Your task to perform on an android device: turn off notifications in google photos Image 0: 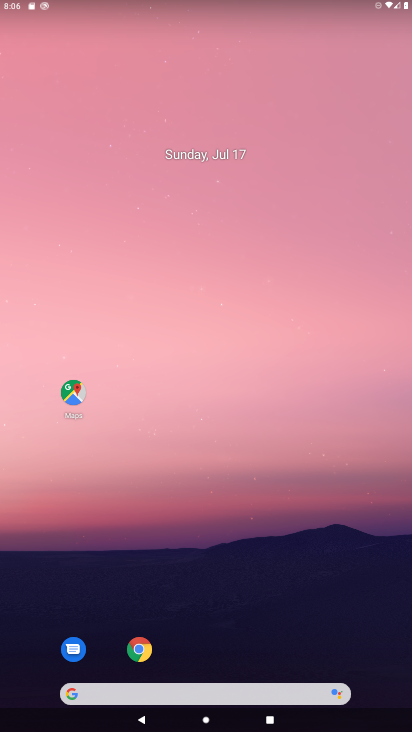
Step 0: drag from (225, 671) to (196, 9)
Your task to perform on an android device: turn off notifications in google photos Image 1: 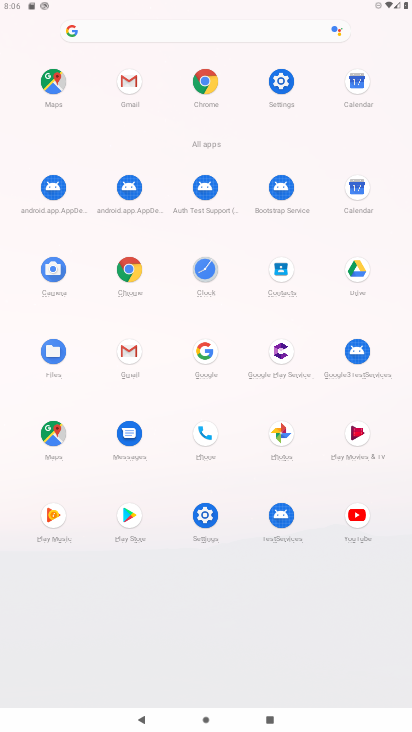
Step 1: click (284, 426)
Your task to perform on an android device: turn off notifications in google photos Image 2: 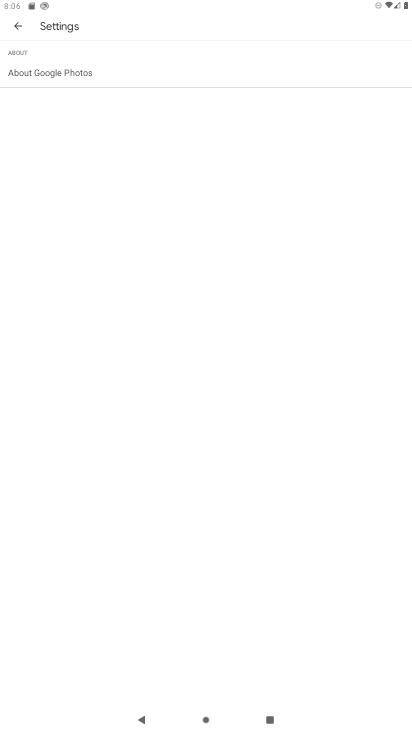
Step 2: click (19, 25)
Your task to perform on an android device: turn off notifications in google photos Image 3: 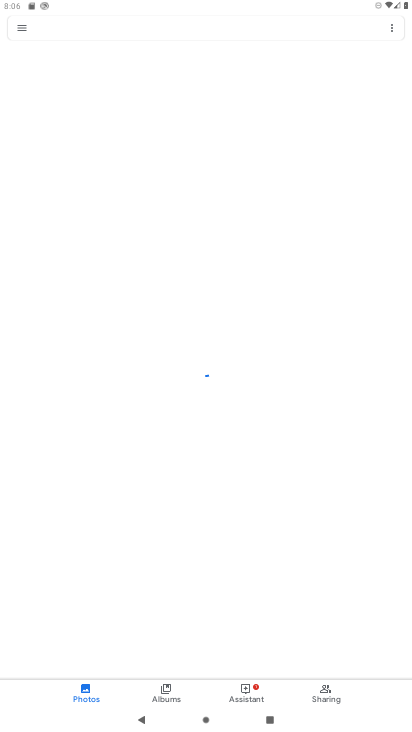
Step 3: click (19, 25)
Your task to perform on an android device: turn off notifications in google photos Image 4: 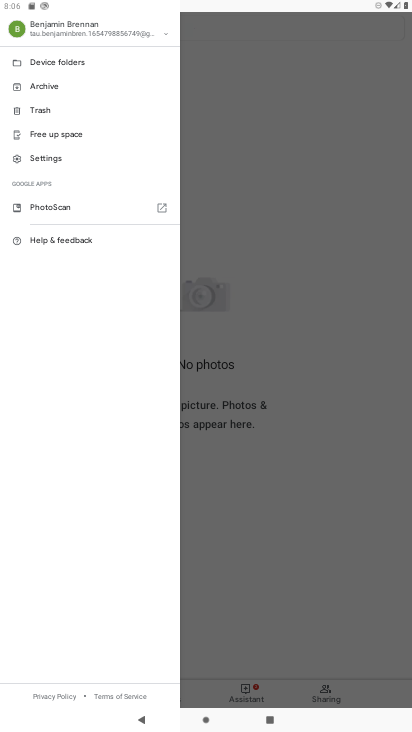
Step 4: click (92, 157)
Your task to perform on an android device: turn off notifications in google photos Image 5: 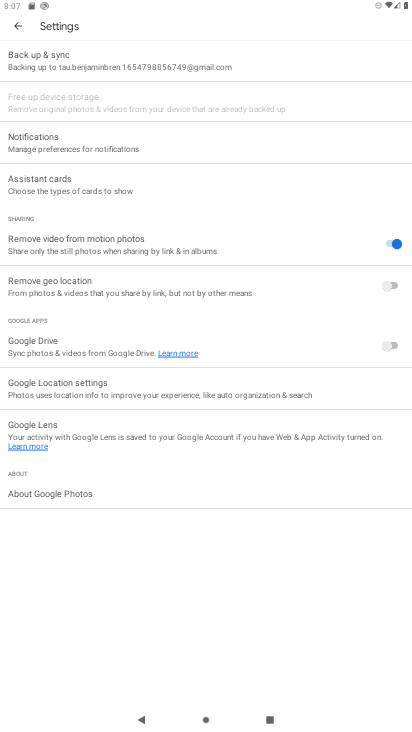
Step 5: click (45, 148)
Your task to perform on an android device: turn off notifications in google photos Image 6: 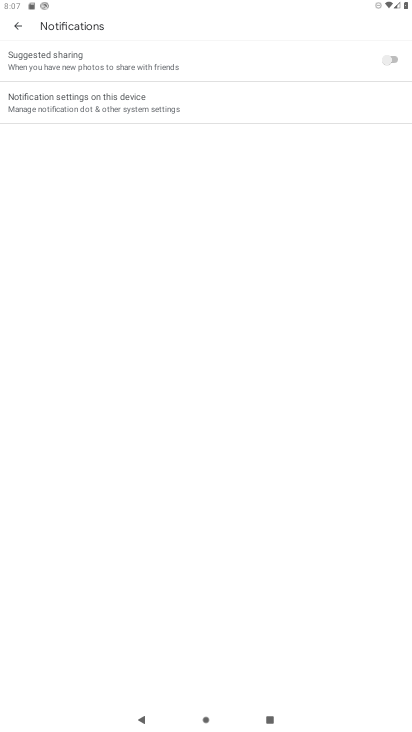
Step 6: click (104, 99)
Your task to perform on an android device: turn off notifications in google photos Image 7: 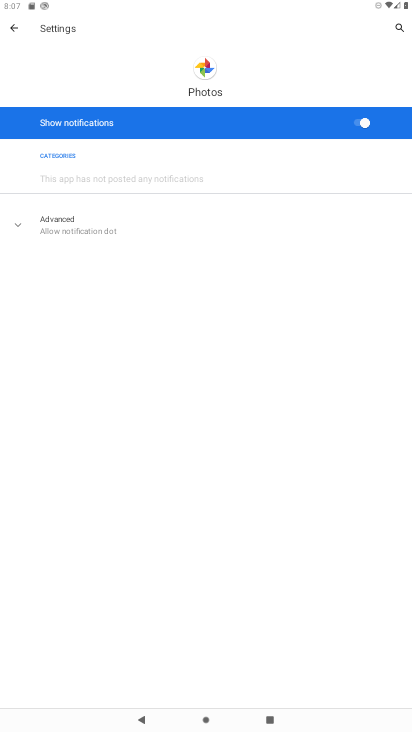
Step 7: click (366, 122)
Your task to perform on an android device: turn off notifications in google photos Image 8: 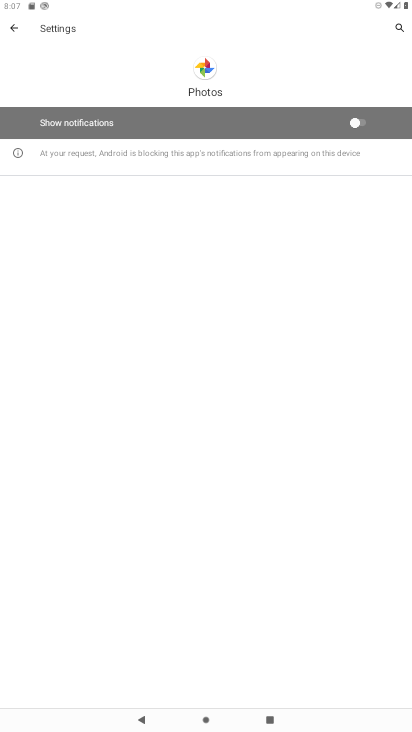
Step 8: task complete